Your task to perform on an android device: Show me some nice wallpapers for my computer Image 0: 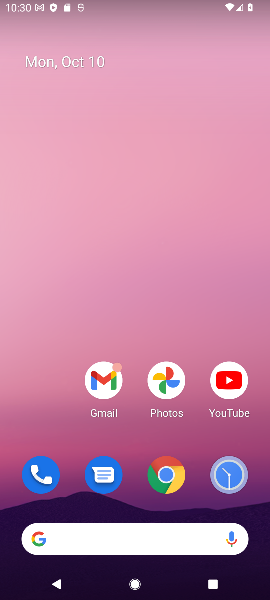
Step 0: click (165, 479)
Your task to perform on an android device: Show me some nice wallpapers for my computer Image 1: 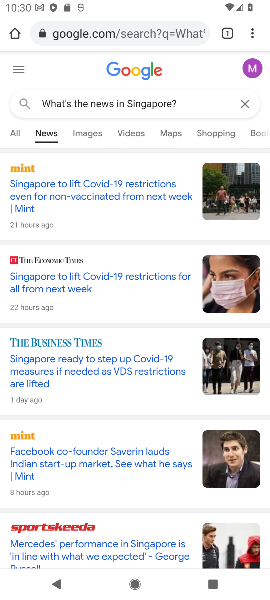
Step 1: click (176, 104)
Your task to perform on an android device: Show me some nice wallpapers for my computer Image 2: 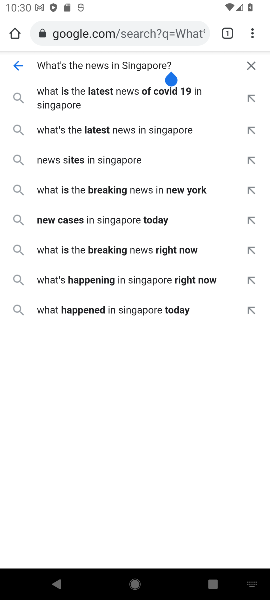
Step 2: click (254, 67)
Your task to perform on an android device: Show me some nice wallpapers for my computer Image 3: 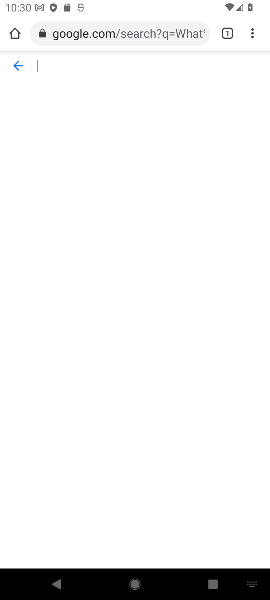
Step 3: type "Show me some nice wallpapers for my computer"
Your task to perform on an android device: Show me some nice wallpapers for my computer Image 4: 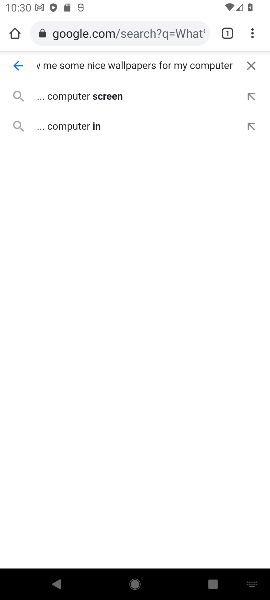
Step 4: press enter
Your task to perform on an android device: Show me some nice wallpapers for my computer Image 5: 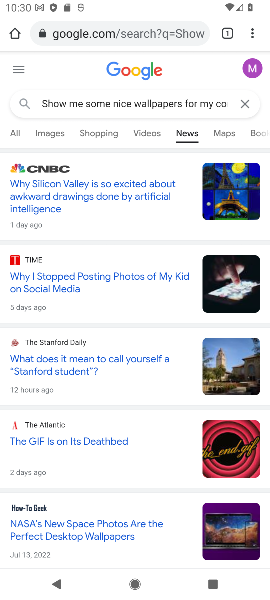
Step 5: task complete